Your task to perform on an android device: toggle show notifications on the lock screen Image 0: 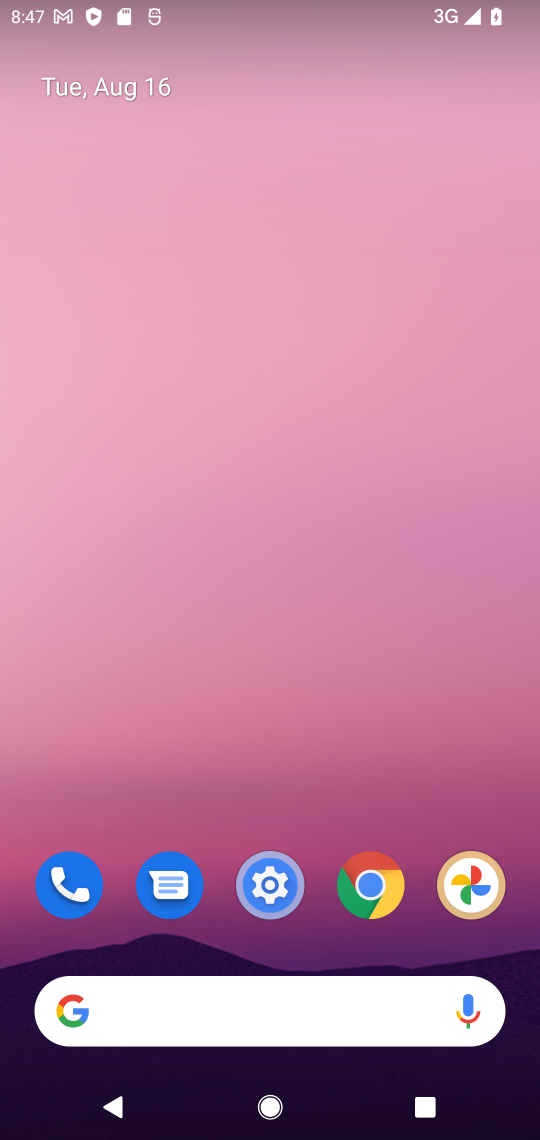
Step 0: click (267, 883)
Your task to perform on an android device: toggle show notifications on the lock screen Image 1: 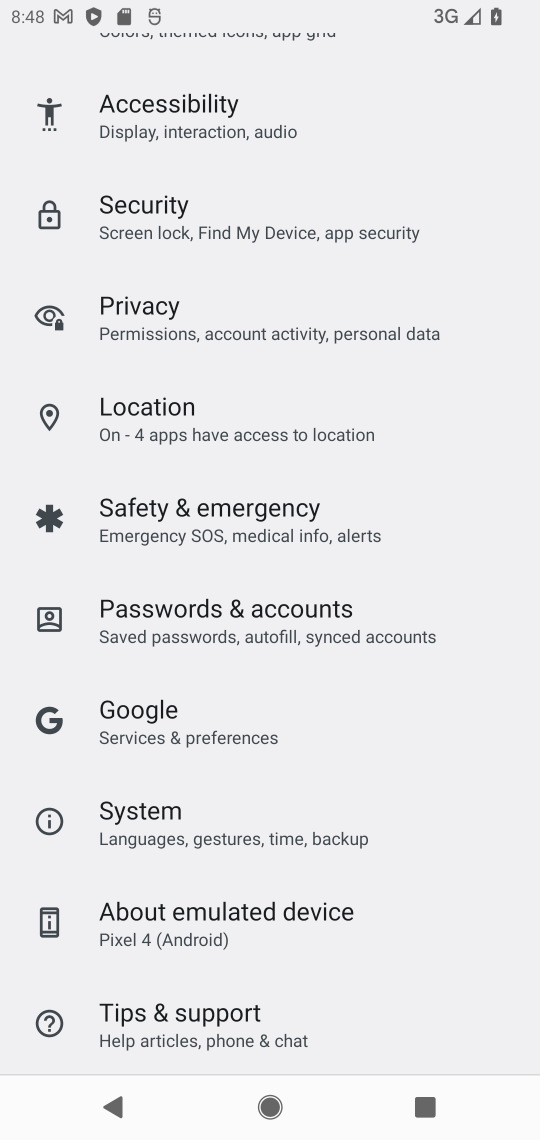
Step 1: drag from (327, 242) to (243, 1069)
Your task to perform on an android device: toggle show notifications on the lock screen Image 2: 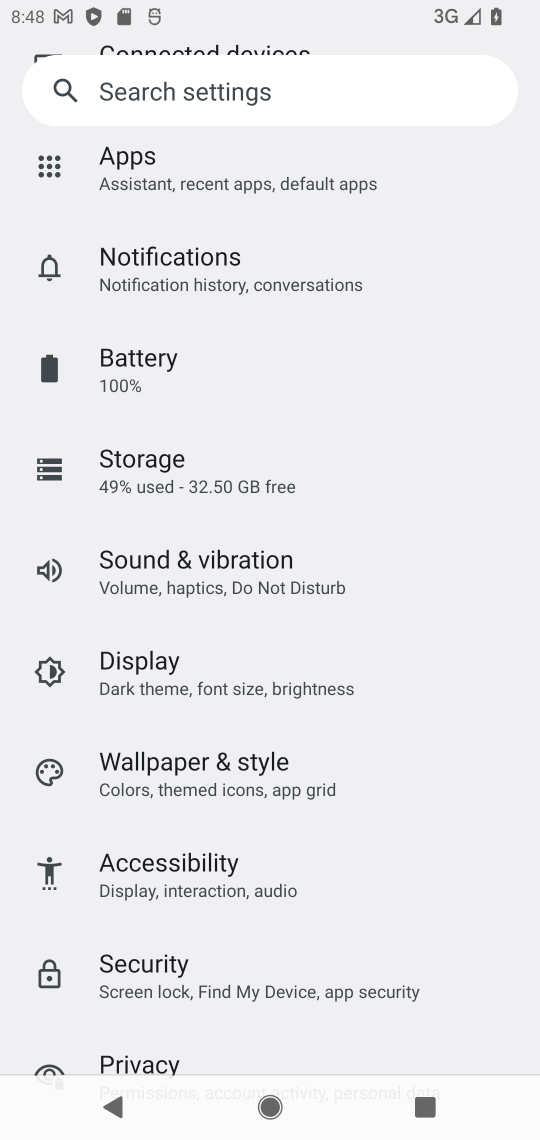
Step 2: drag from (328, 350) to (273, 706)
Your task to perform on an android device: toggle show notifications on the lock screen Image 3: 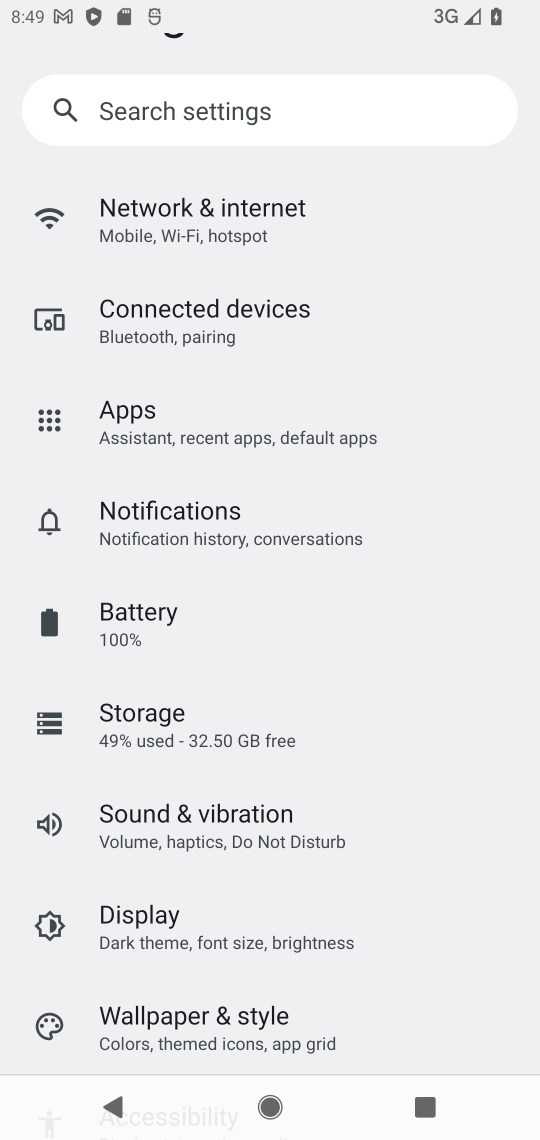
Step 3: click (256, 536)
Your task to perform on an android device: toggle show notifications on the lock screen Image 4: 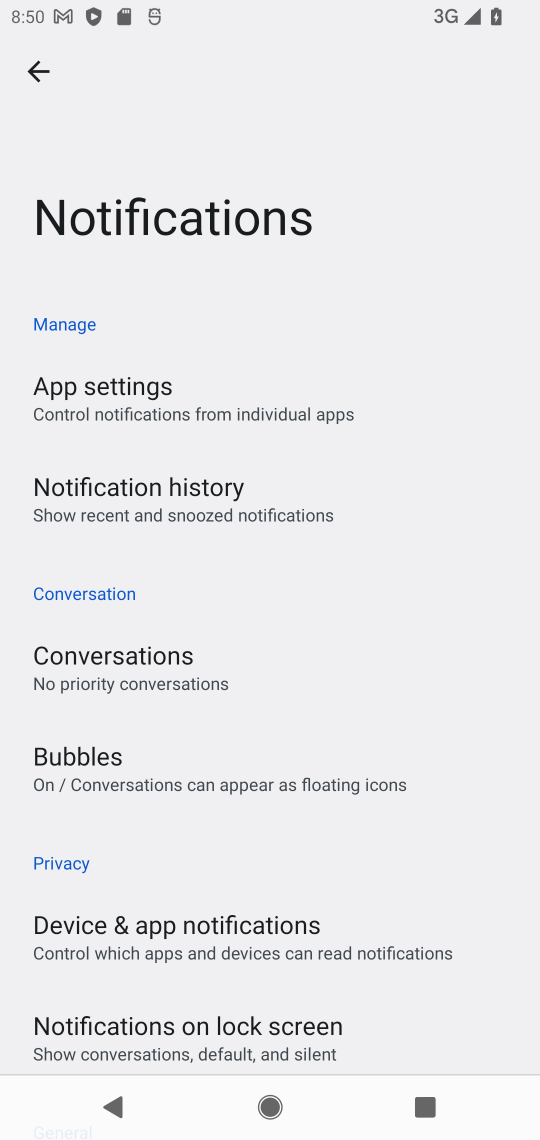
Step 4: click (281, 1054)
Your task to perform on an android device: toggle show notifications on the lock screen Image 5: 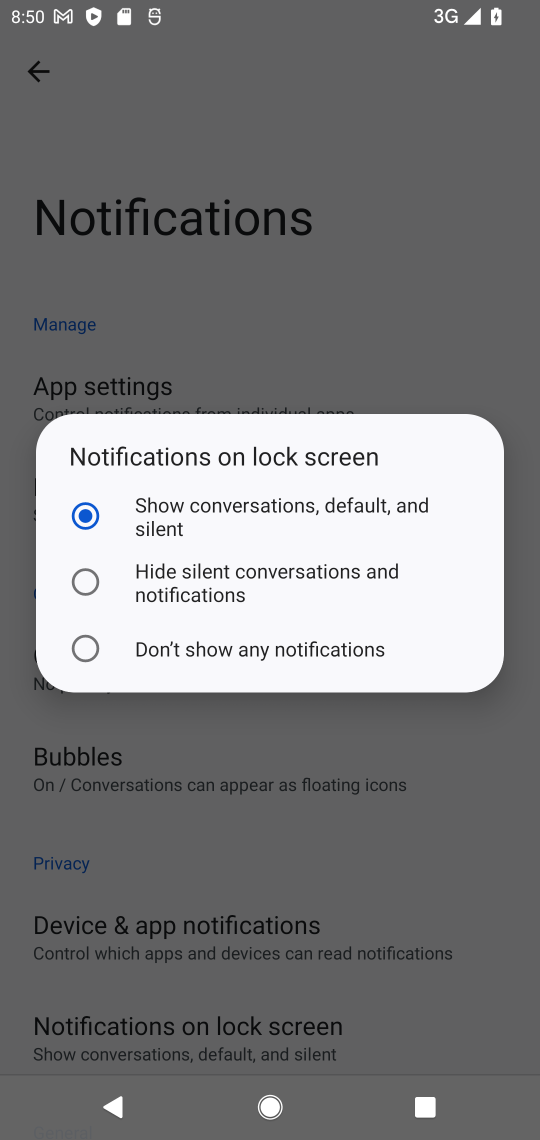
Step 5: click (78, 659)
Your task to perform on an android device: toggle show notifications on the lock screen Image 6: 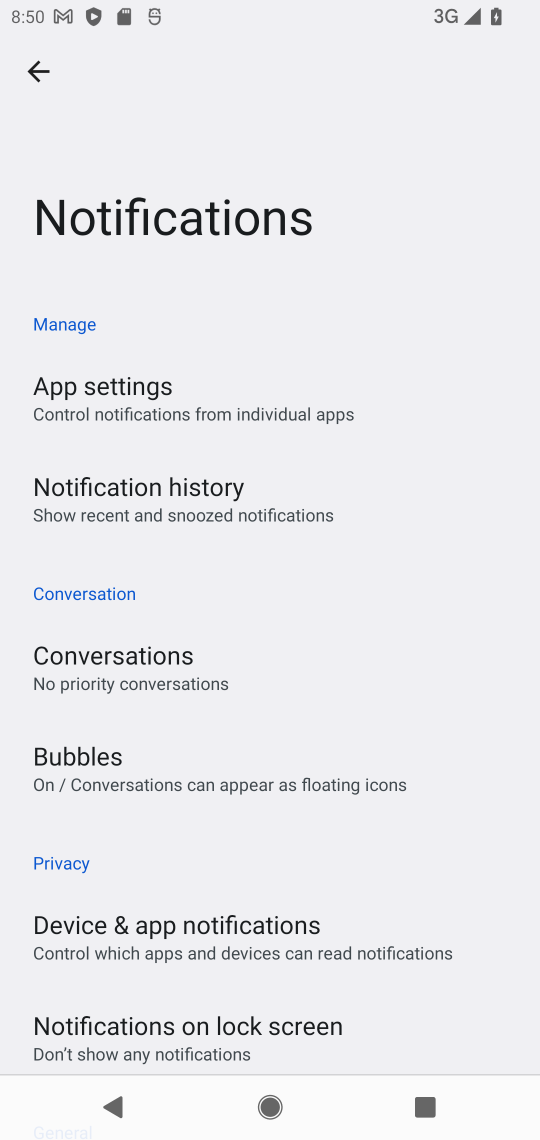
Step 6: task complete